Your task to perform on an android device: add a contact Image 0: 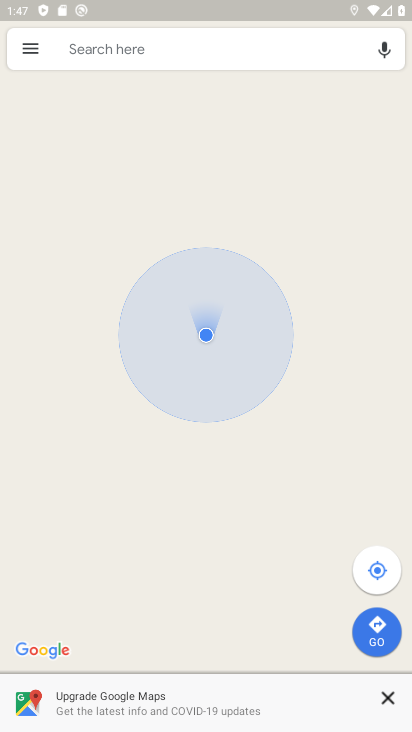
Step 0: press home button
Your task to perform on an android device: add a contact Image 1: 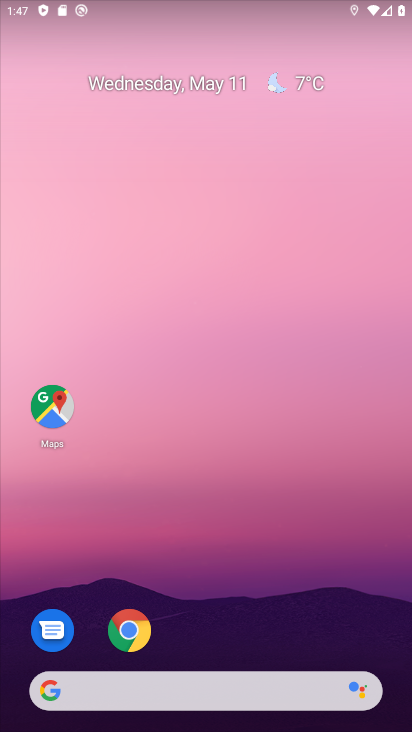
Step 1: drag from (338, 618) to (256, 58)
Your task to perform on an android device: add a contact Image 2: 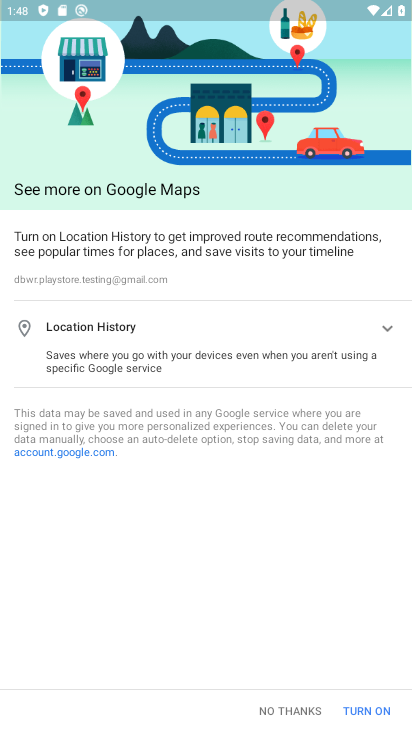
Step 2: press back button
Your task to perform on an android device: add a contact Image 3: 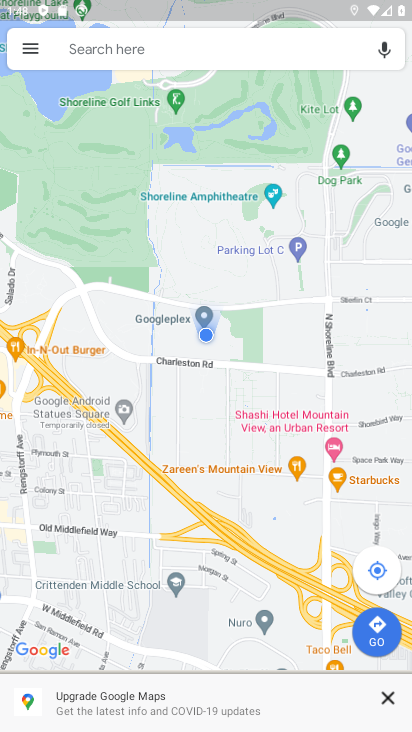
Step 3: press home button
Your task to perform on an android device: add a contact Image 4: 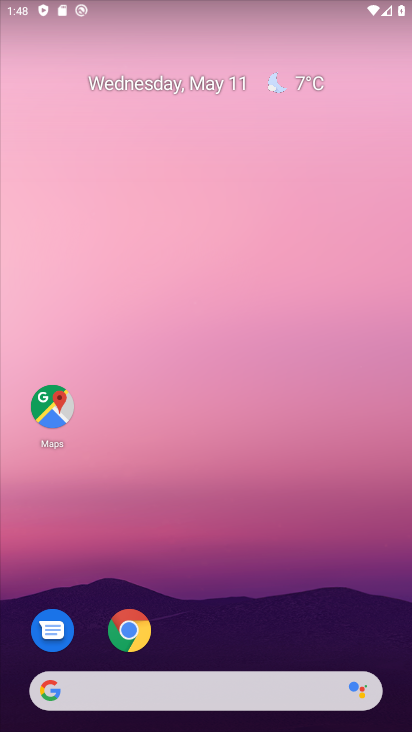
Step 4: drag from (294, 624) to (255, 89)
Your task to perform on an android device: add a contact Image 5: 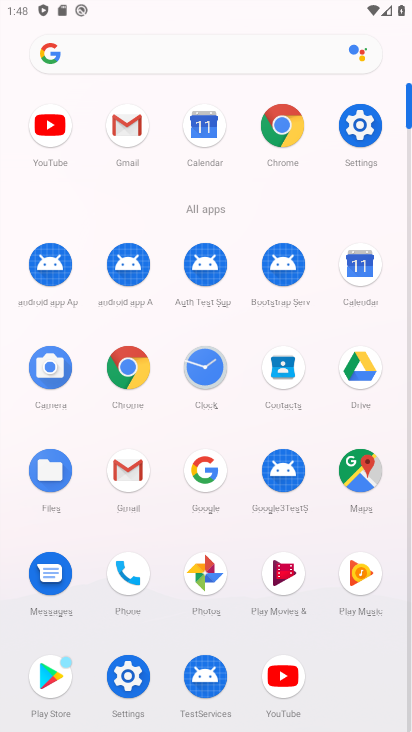
Step 5: click (294, 382)
Your task to perform on an android device: add a contact Image 6: 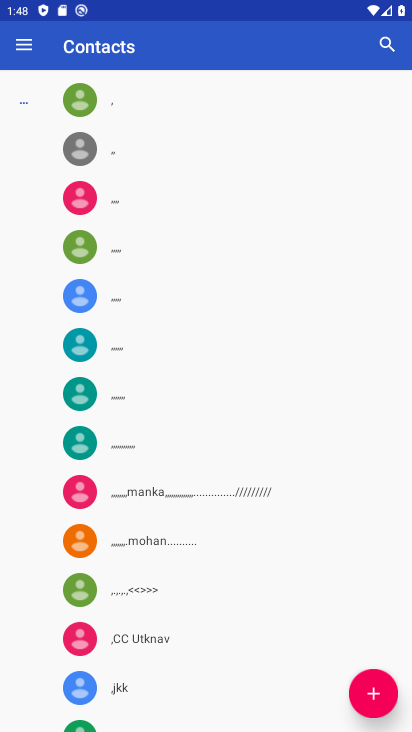
Step 6: click (367, 698)
Your task to perform on an android device: add a contact Image 7: 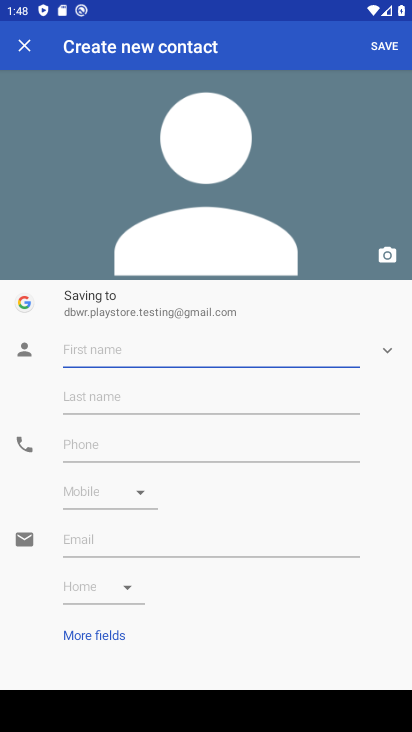
Step 7: type "ajay"
Your task to perform on an android device: add a contact Image 8: 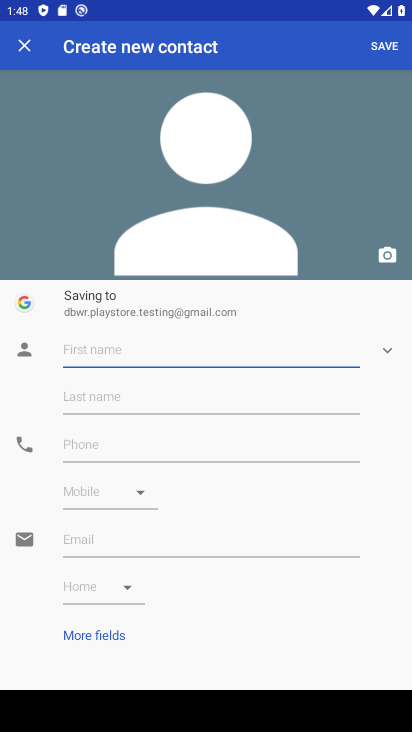
Step 8: click (380, 46)
Your task to perform on an android device: add a contact Image 9: 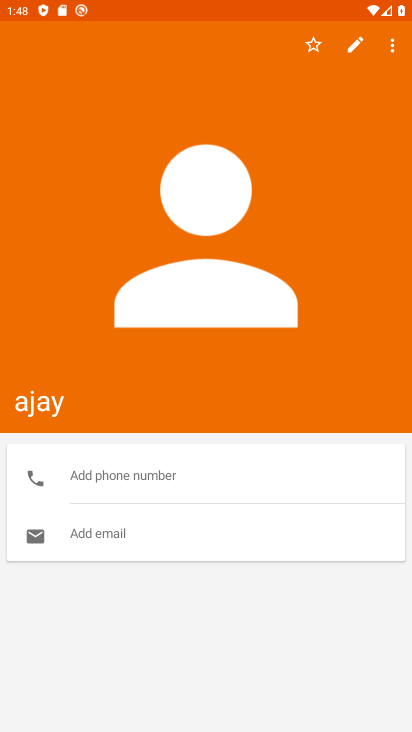
Step 9: task complete